Your task to perform on an android device: Open battery settings Image 0: 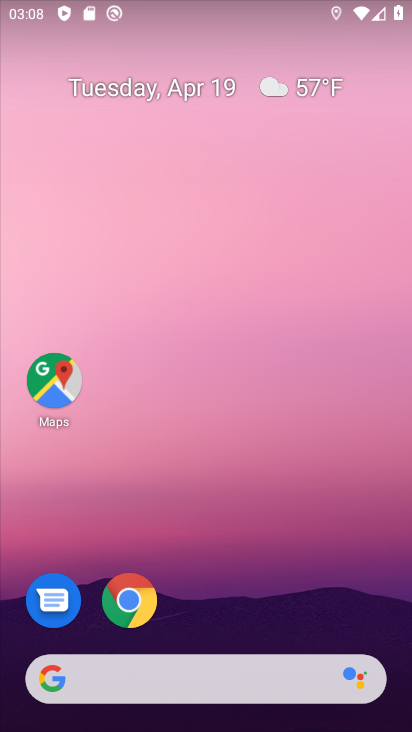
Step 0: drag from (283, 573) to (273, 81)
Your task to perform on an android device: Open battery settings Image 1: 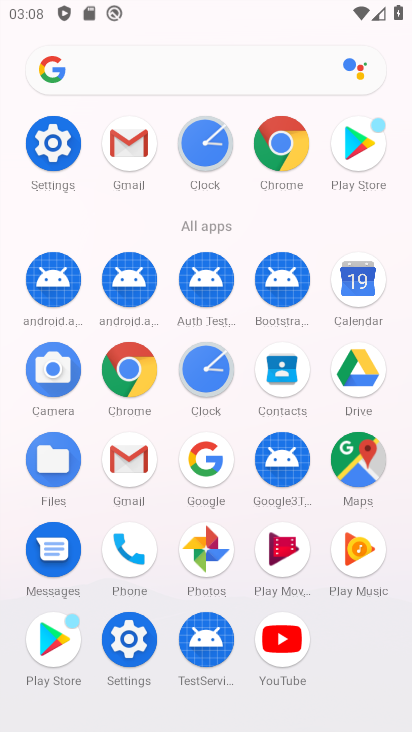
Step 1: click (39, 160)
Your task to perform on an android device: Open battery settings Image 2: 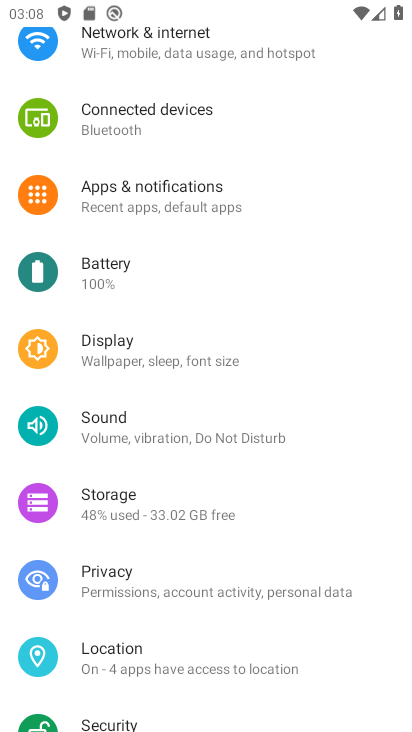
Step 2: click (151, 272)
Your task to perform on an android device: Open battery settings Image 3: 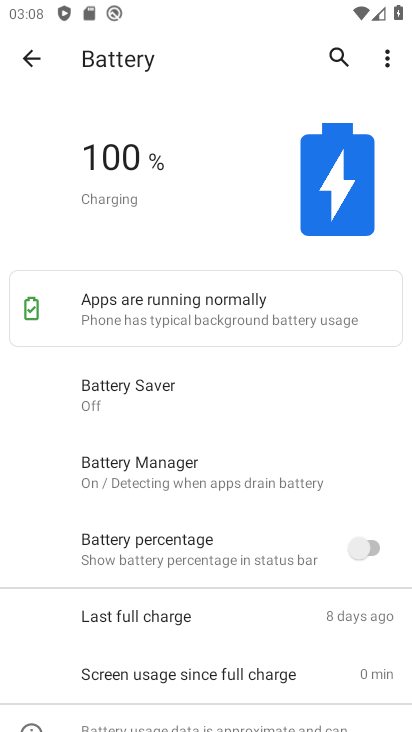
Step 3: task complete